Your task to perform on an android device: Show me recent news Image 0: 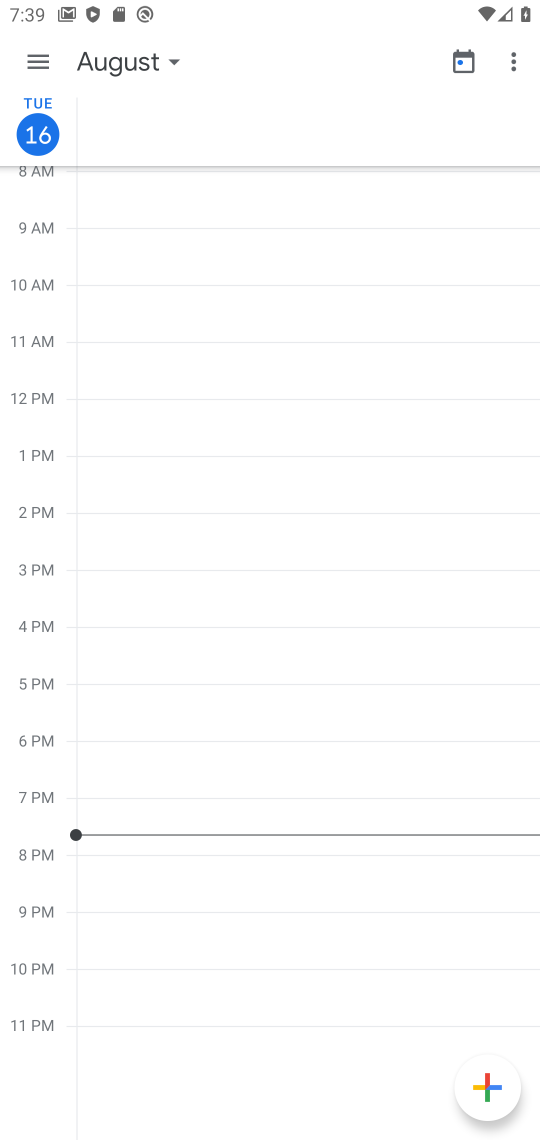
Step 0: press home button
Your task to perform on an android device: Show me recent news Image 1: 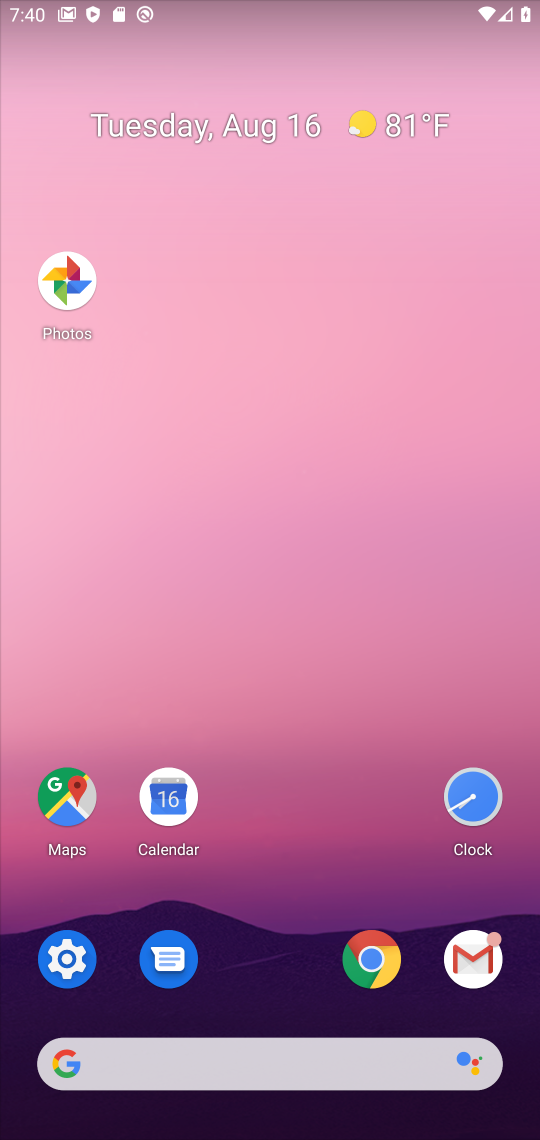
Step 1: click (219, 1063)
Your task to perform on an android device: Show me recent news Image 2: 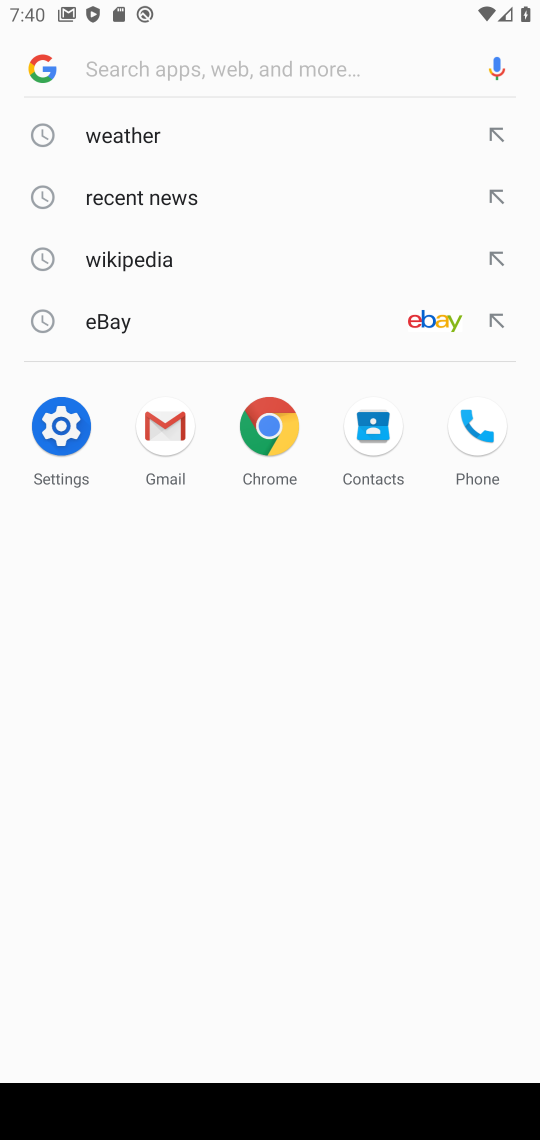
Step 2: click (133, 192)
Your task to perform on an android device: Show me recent news Image 3: 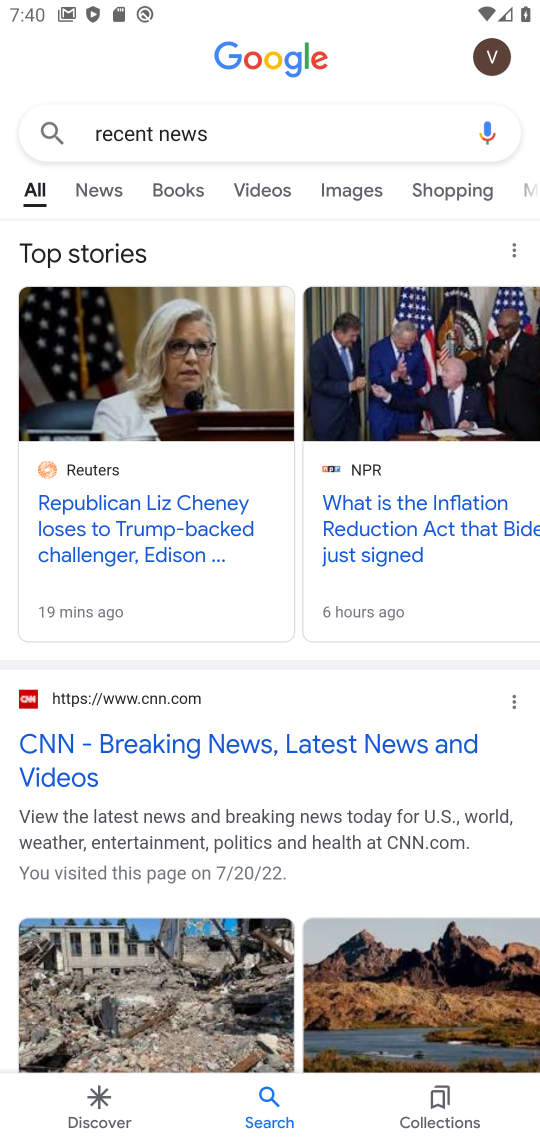
Step 3: task complete